Your task to perform on an android device: add a contact in the contacts app Image 0: 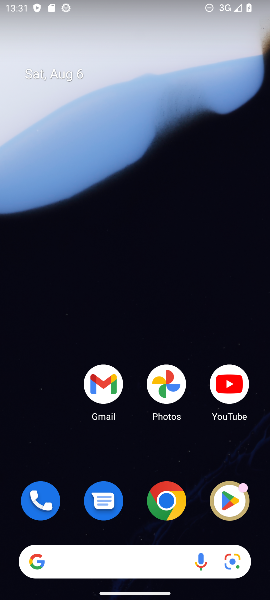
Step 0: drag from (130, 480) to (136, 258)
Your task to perform on an android device: add a contact in the contacts app Image 1: 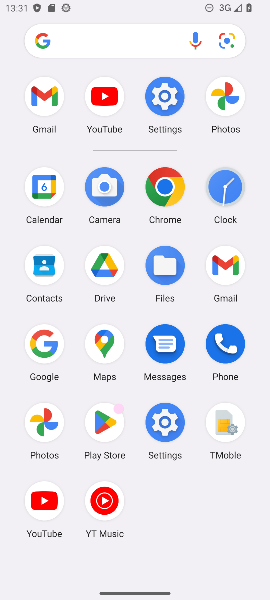
Step 1: click (39, 272)
Your task to perform on an android device: add a contact in the contacts app Image 2: 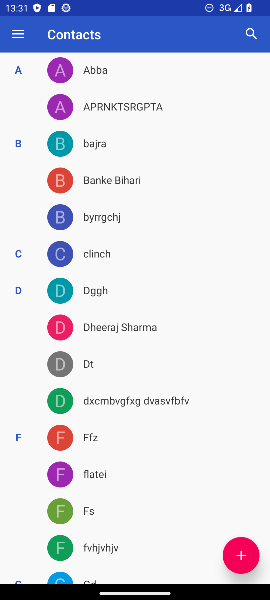
Step 2: click (245, 548)
Your task to perform on an android device: add a contact in the contacts app Image 3: 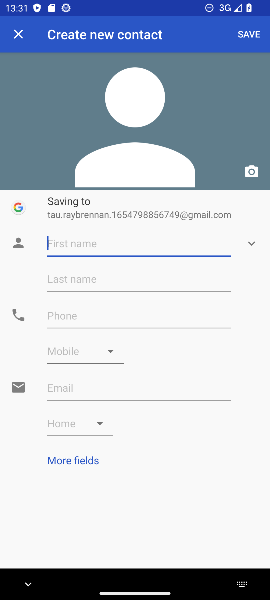
Step 3: type "naresh"
Your task to perform on an android device: add a contact in the contacts app Image 4: 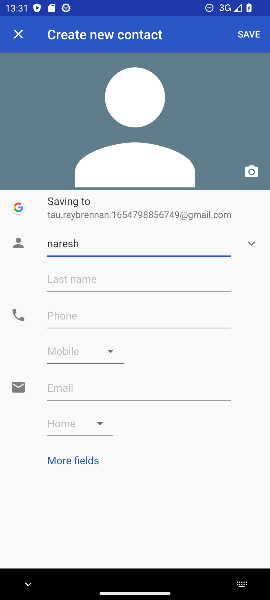
Step 4: click (172, 279)
Your task to perform on an android device: add a contact in the contacts app Image 5: 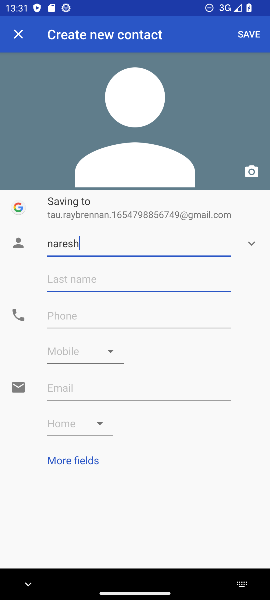
Step 5: type "prajapati"
Your task to perform on an android device: add a contact in the contacts app Image 6: 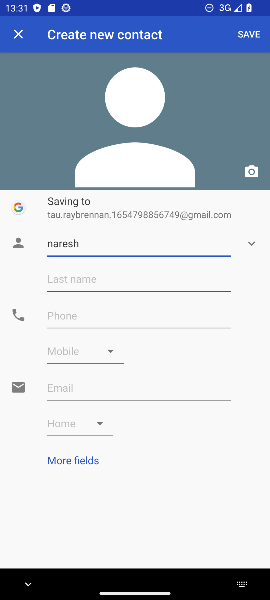
Step 6: drag from (172, 279) to (259, 313)
Your task to perform on an android device: add a contact in the contacts app Image 7: 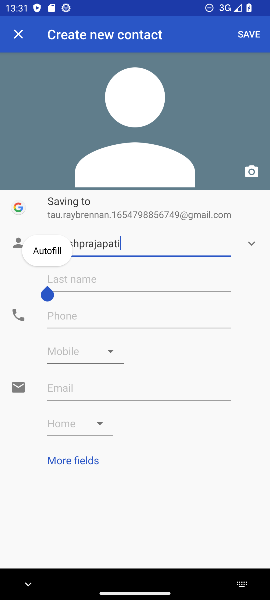
Step 7: click (196, 320)
Your task to perform on an android device: add a contact in the contacts app Image 8: 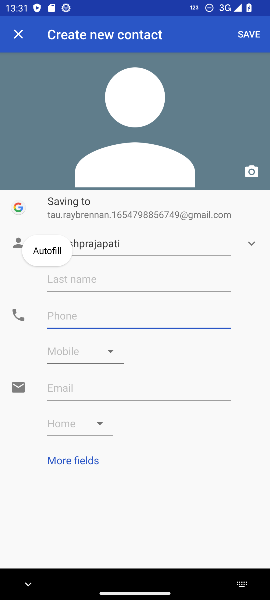
Step 8: type "9098765678"
Your task to perform on an android device: add a contact in the contacts app Image 9: 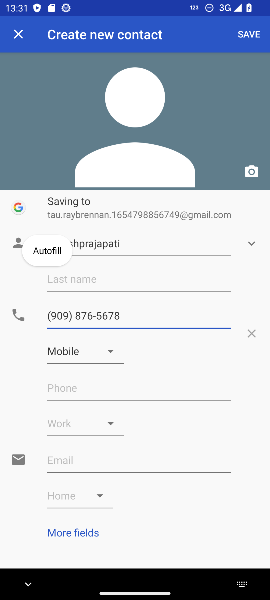
Step 9: click (243, 29)
Your task to perform on an android device: add a contact in the contacts app Image 10: 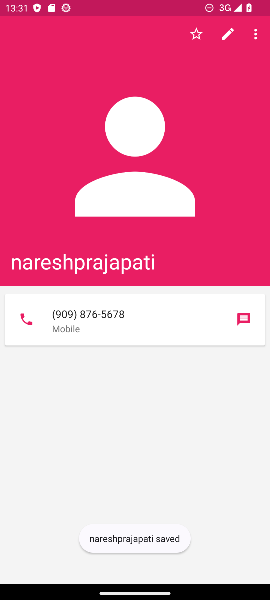
Step 10: task complete